Your task to perform on an android device: Go to network settings Image 0: 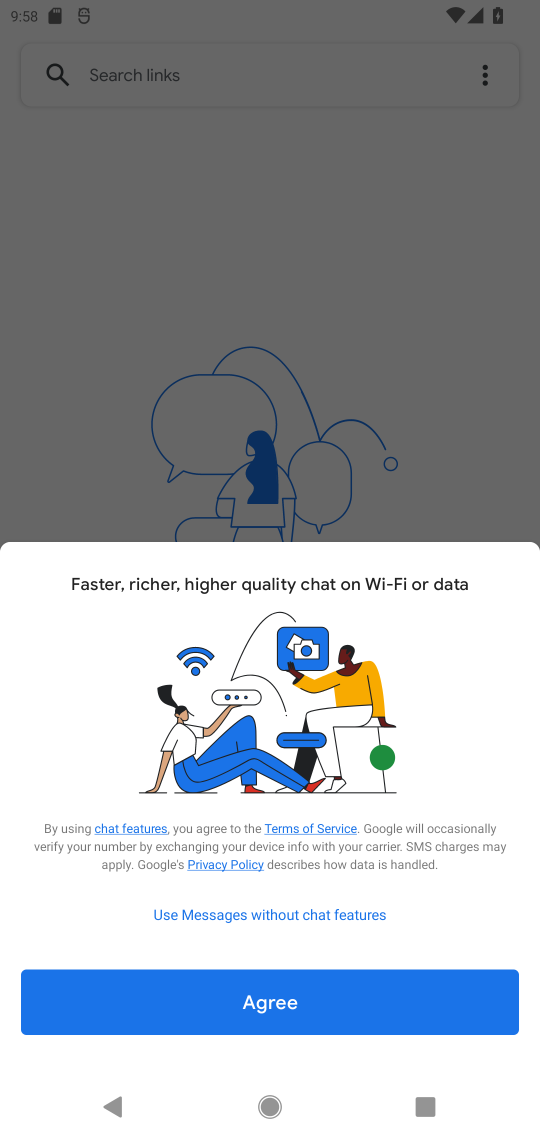
Step 0: drag from (165, 17) to (133, 1022)
Your task to perform on an android device: Go to network settings Image 1: 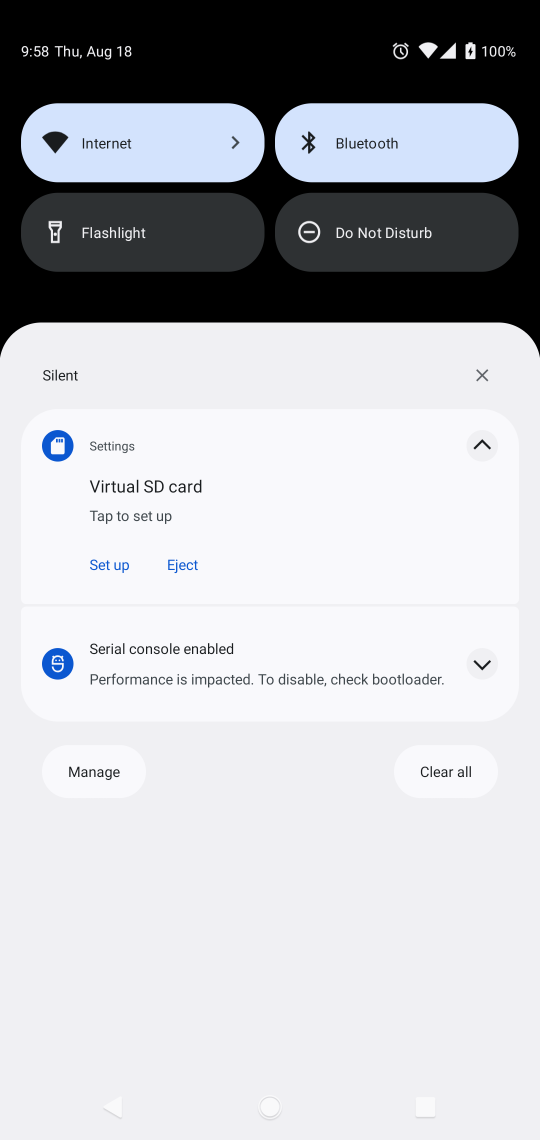
Step 1: click (133, 1022)
Your task to perform on an android device: Go to network settings Image 2: 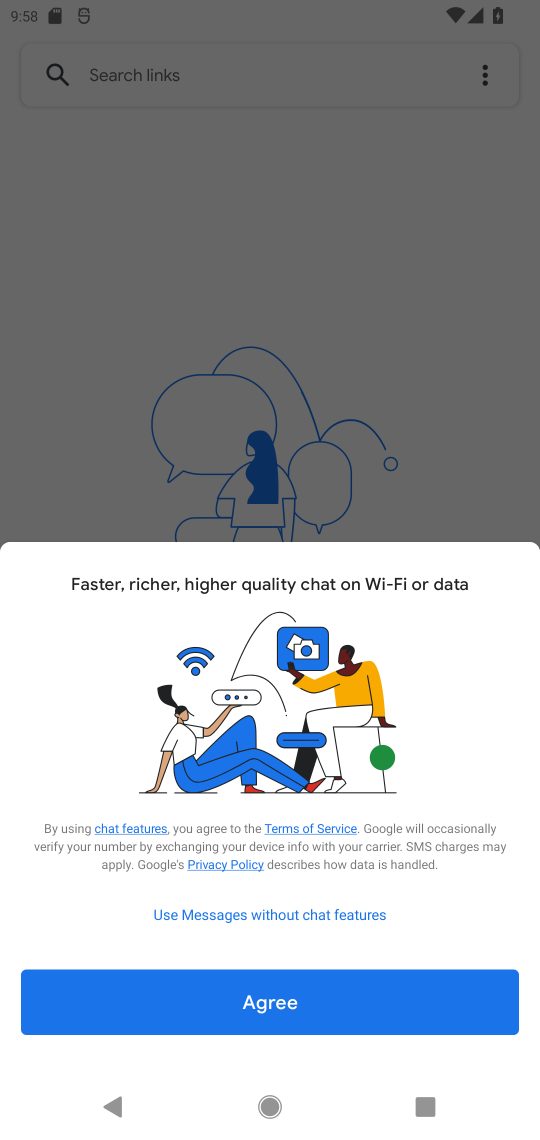
Step 2: click (222, 137)
Your task to perform on an android device: Go to network settings Image 3: 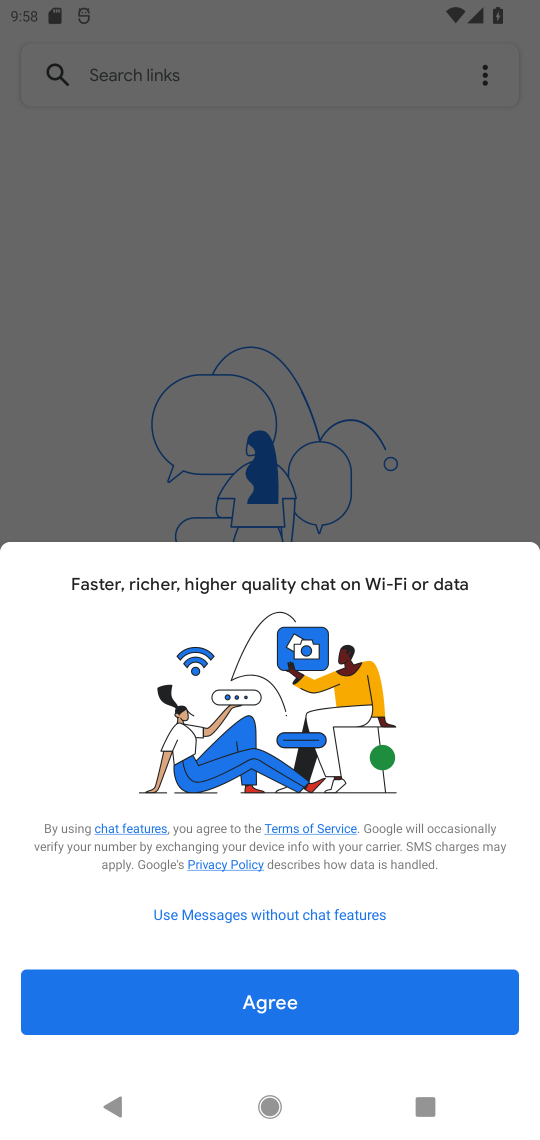
Step 3: drag from (240, 9) to (355, 950)
Your task to perform on an android device: Go to network settings Image 4: 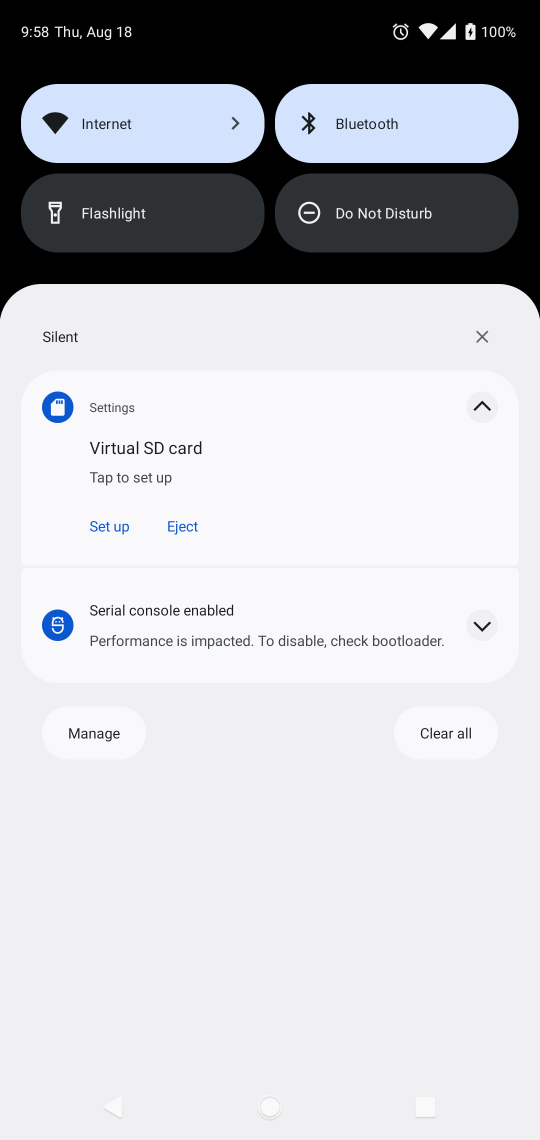
Step 4: click (196, 145)
Your task to perform on an android device: Go to network settings Image 5: 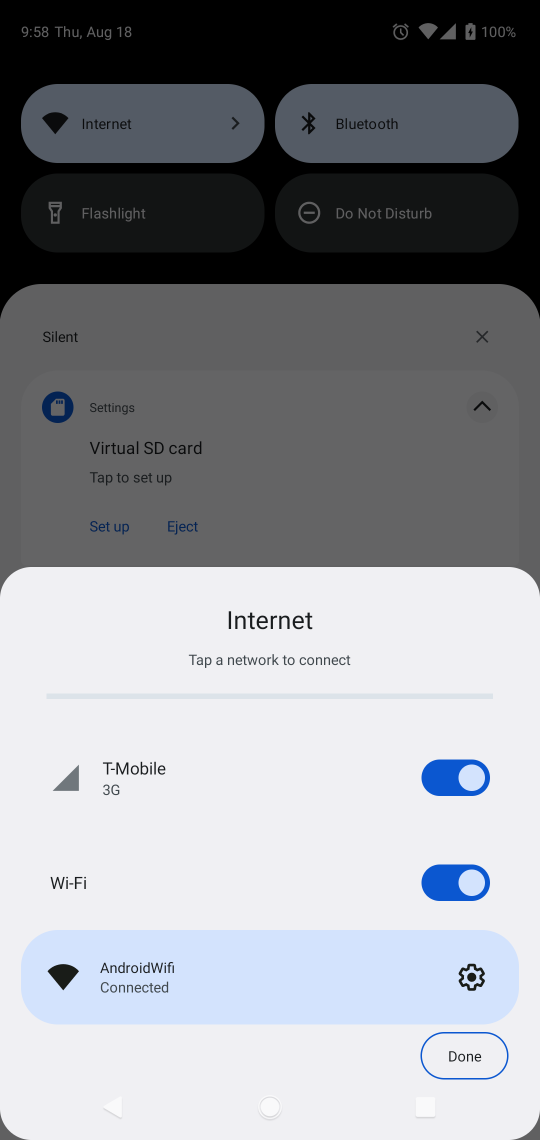
Step 5: task complete